Your task to perform on an android device: Open the stopwatch Image 0: 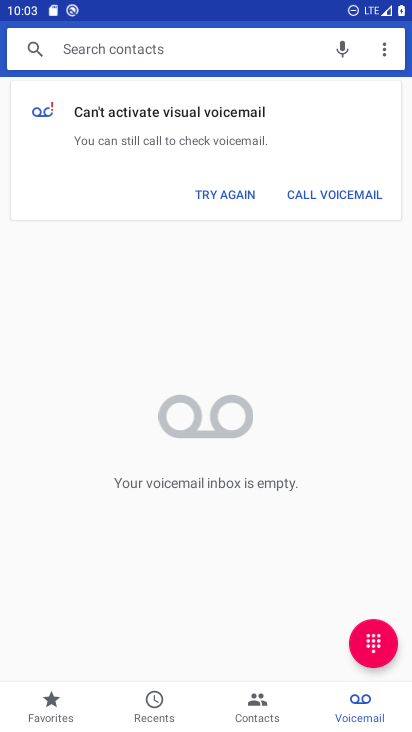
Step 0: press home button
Your task to perform on an android device: Open the stopwatch Image 1: 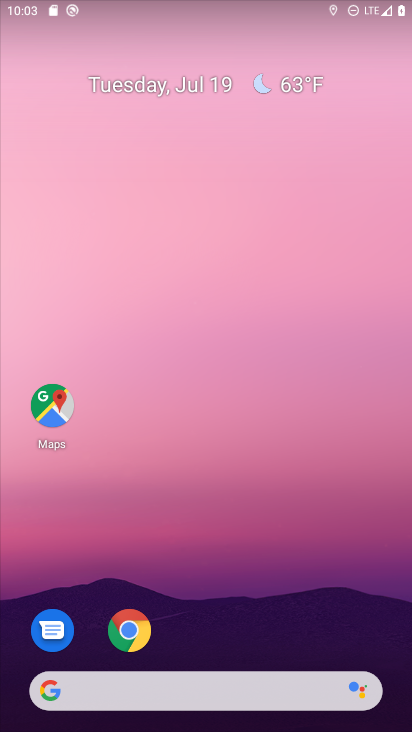
Step 1: drag from (194, 693) to (237, 86)
Your task to perform on an android device: Open the stopwatch Image 2: 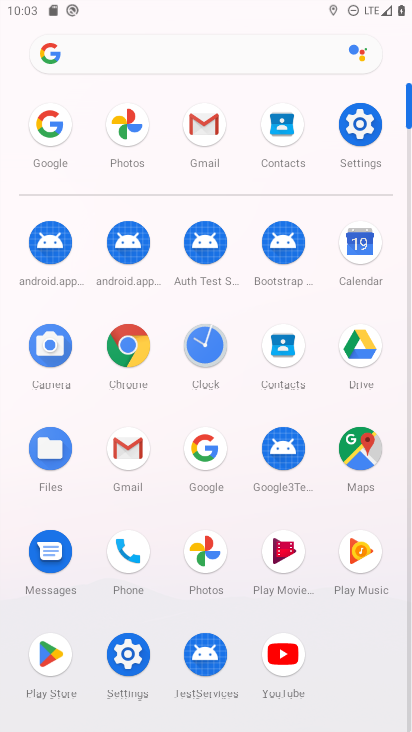
Step 2: click (204, 344)
Your task to perform on an android device: Open the stopwatch Image 3: 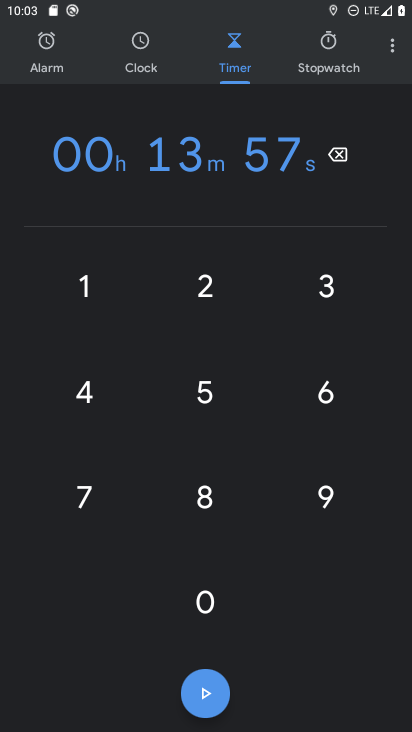
Step 3: click (326, 46)
Your task to perform on an android device: Open the stopwatch Image 4: 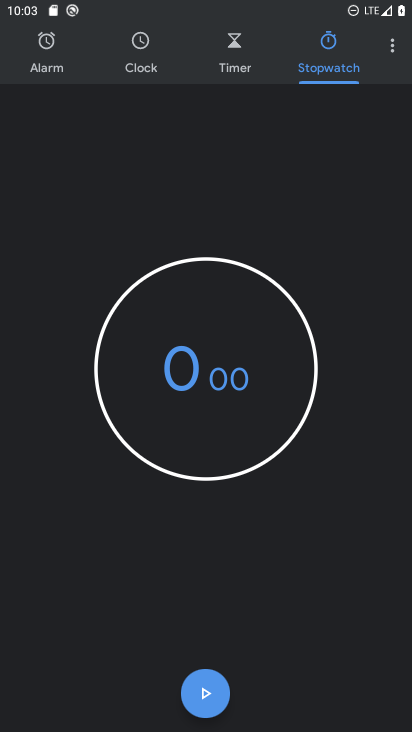
Step 4: task complete